Your task to perform on an android device: Show me popular videos on Youtube Image 0: 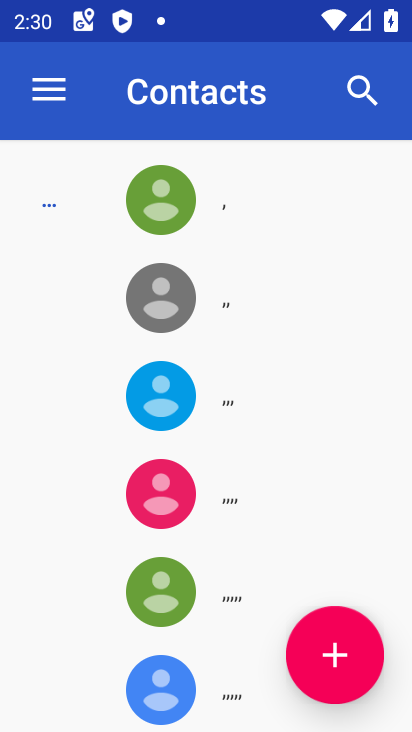
Step 0: press home button
Your task to perform on an android device: Show me popular videos on Youtube Image 1: 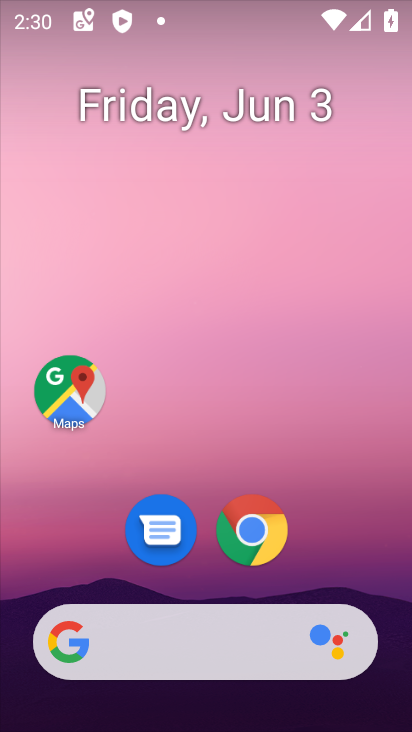
Step 1: drag from (317, 501) to (249, 189)
Your task to perform on an android device: Show me popular videos on Youtube Image 2: 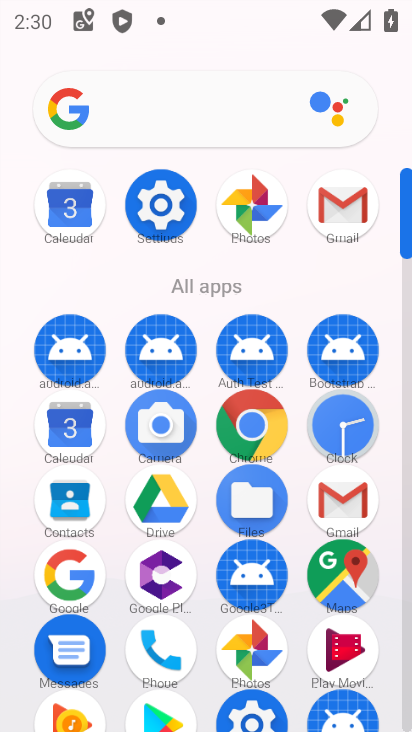
Step 2: drag from (209, 631) to (209, 261)
Your task to perform on an android device: Show me popular videos on Youtube Image 3: 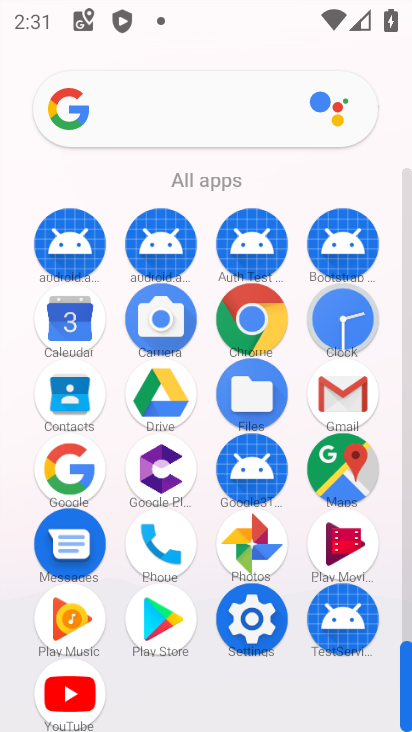
Step 3: click (59, 690)
Your task to perform on an android device: Show me popular videos on Youtube Image 4: 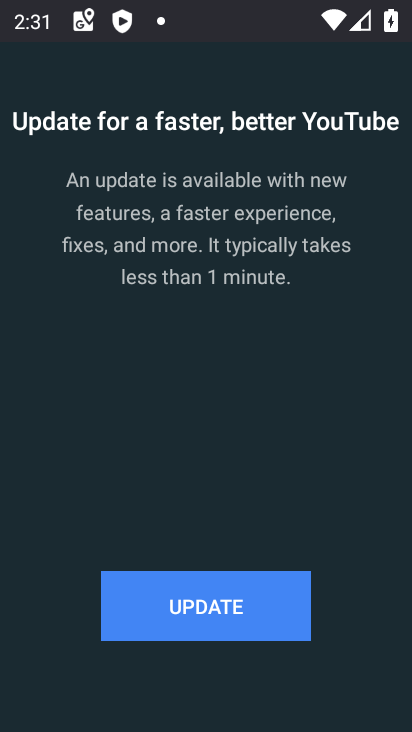
Step 4: click (217, 603)
Your task to perform on an android device: Show me popular videos on Youtube Image 5: 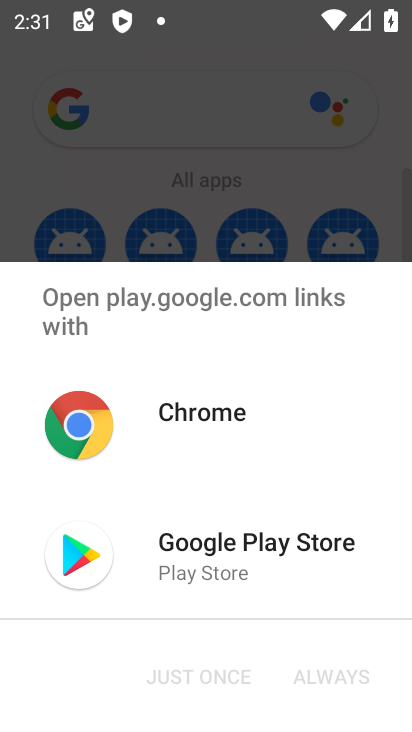
Step 5: click (195, 560)
Your task to perform on an android device: Show me popular videos on Youtube Image 6: 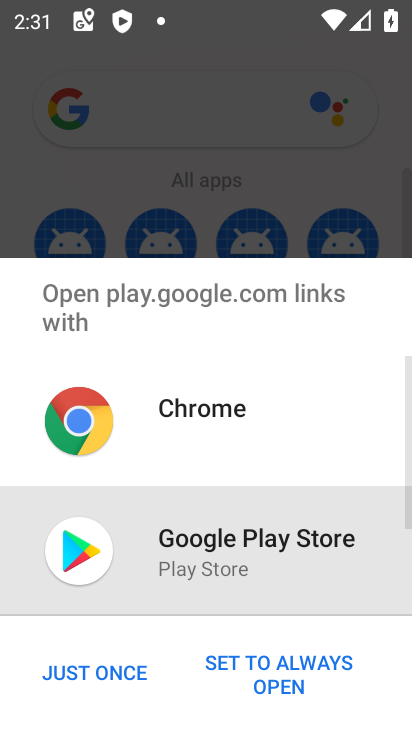
Step 6: click (109, 663)
Your task to perform on an android device: Show me popular videos on Youtube Image 7: 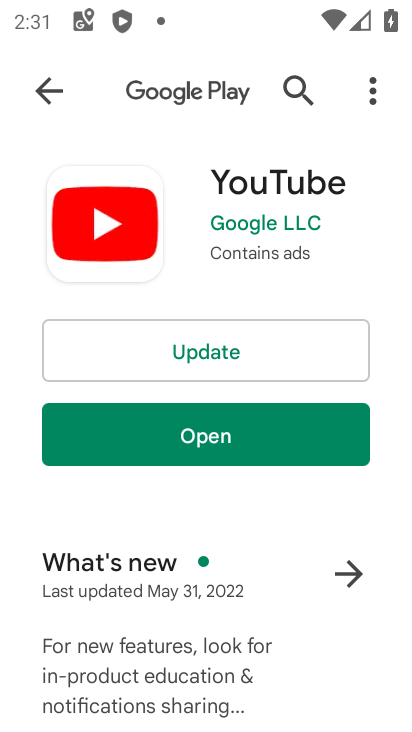
Step 7: click (204, 359)
Your task to perform on an android device: Show me popular videos on Youtube Image 8: 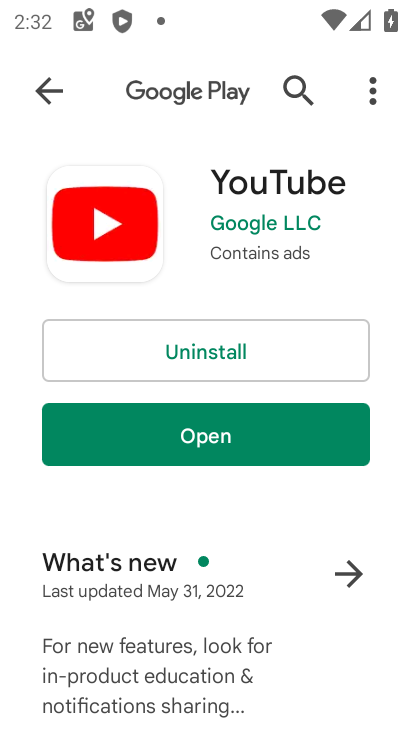
Step 8: click (205, 443)
Your task to perform on an android device: Show me popular videos on Youtube Image 9: 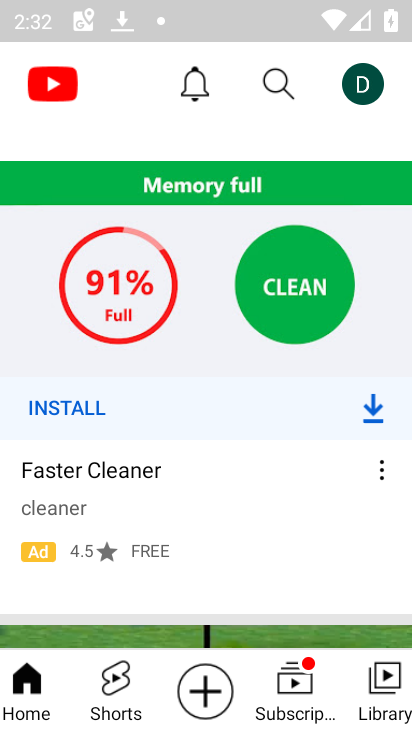
Step 9: click (112, 667)
Your task to perform on an android device: Show me popular videos on Youtube Image 10: 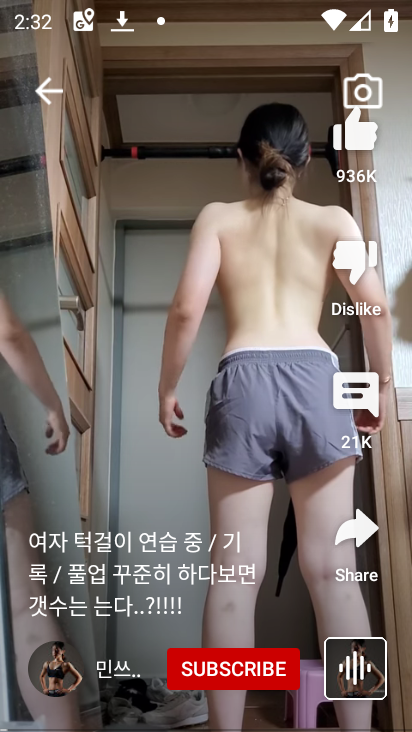
Step 10: task complete